Your task to perform on an android device: Turn off the flashlight Image 0: 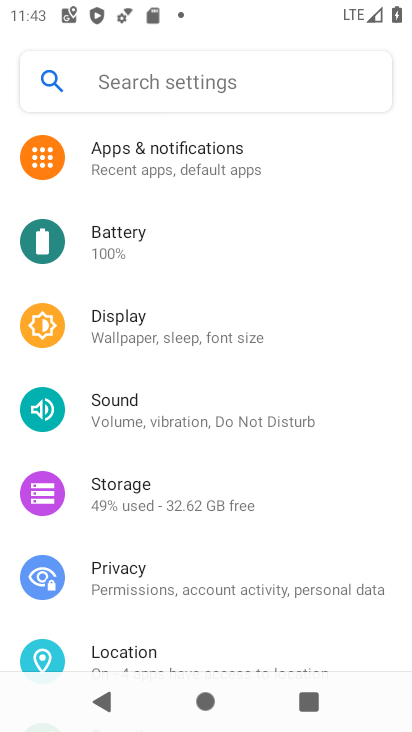
Step 0: drag from (292, 445) to (298, 143)
Your task to perform on an android device: Turn off the flashlight Image 1: 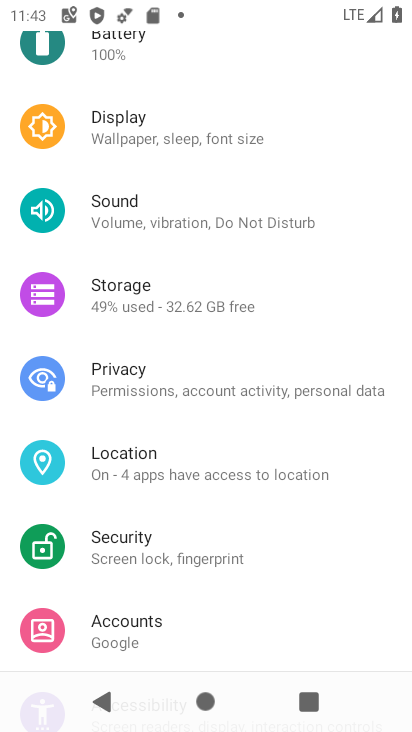
Step 1: task complete